Your task to perform on an android device: Open Yahoo.com Image 0: 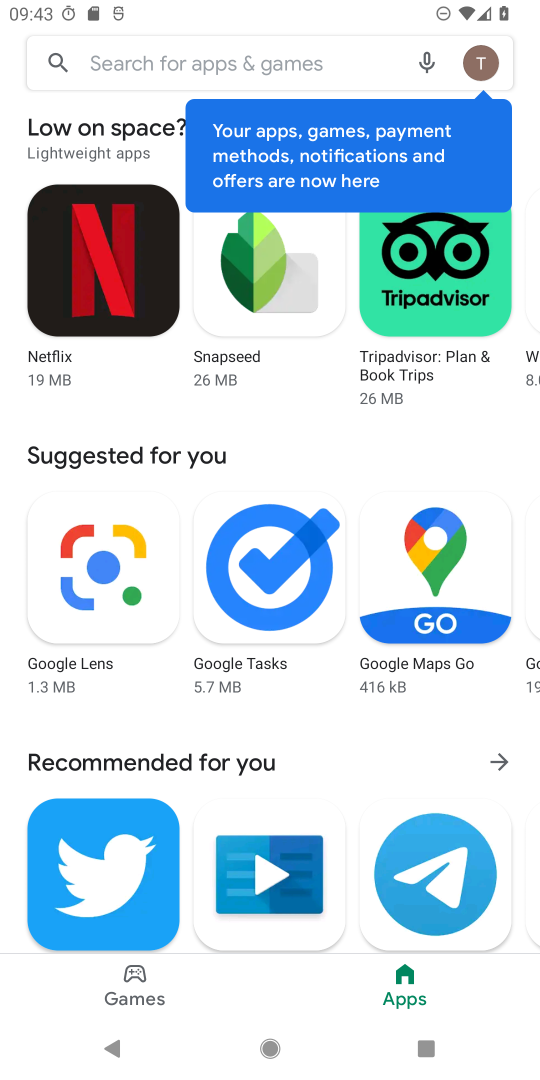
Step 0: press home button
Your task to perform on an android device: Open Yahoo.com Image 1: 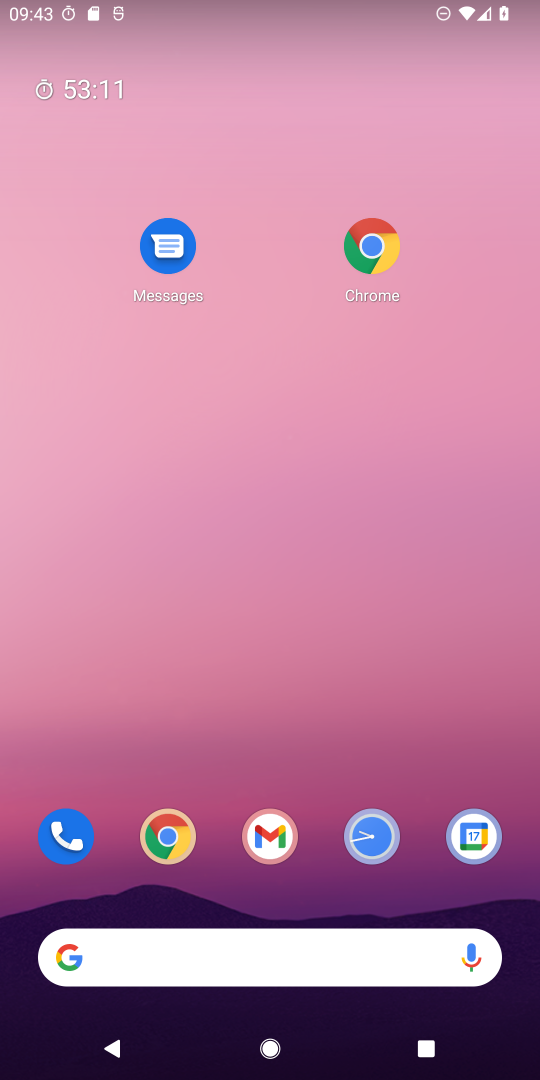
Step 1: drag from (187, 864) to (225, 170)
Your task to perform on an android device: Open Yahoo.com Image 2: 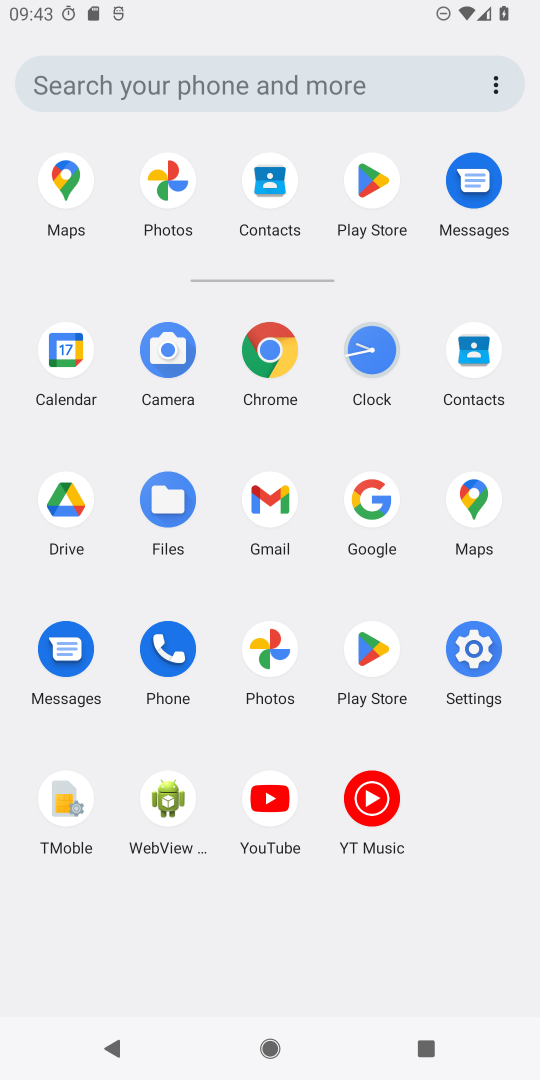
Step 2: click (257, 359)
Your task to perform on an android device: Open Yahoo.com Image 3: 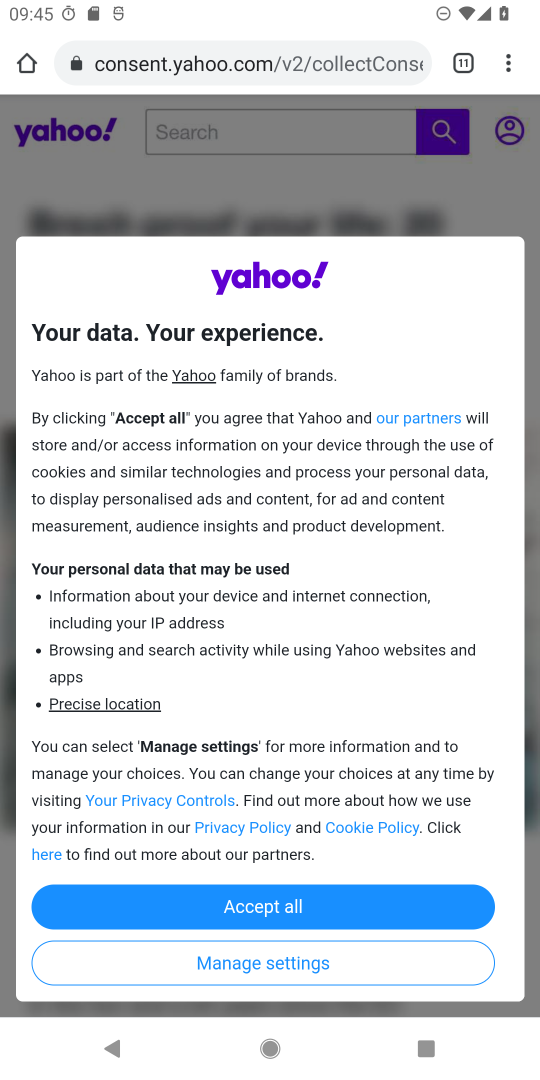
Step 3: task complete